Your task to perform on an android device: Add "razer blackwidow" to the cart on target.com, then select checkout. Image 0: 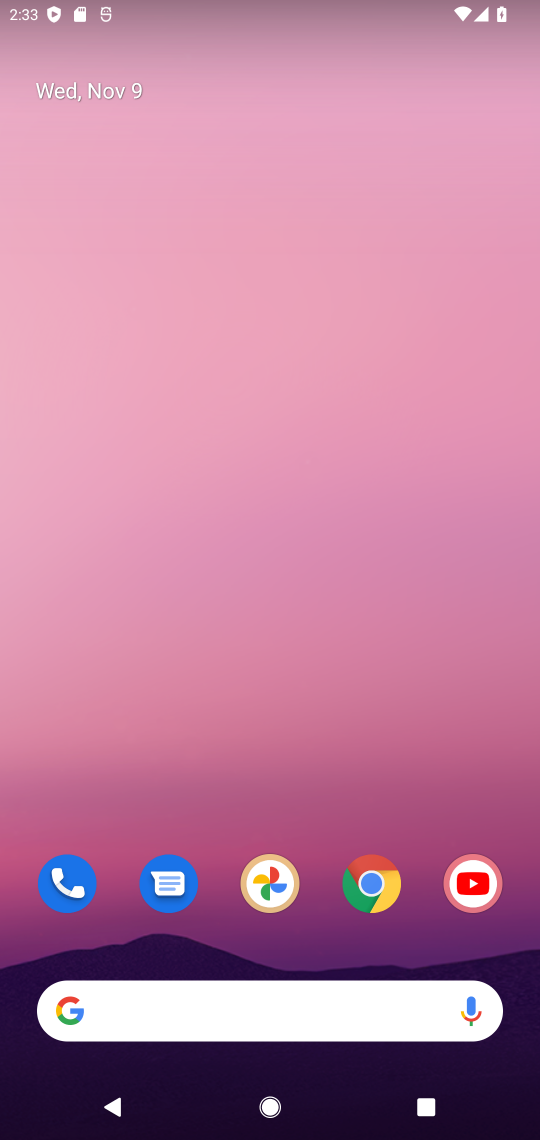
Step 0: click (350, 890)
Your task to perform on an android device: Add "razer blackwidow" to the cart on target.com, then select checkout. Image 1: 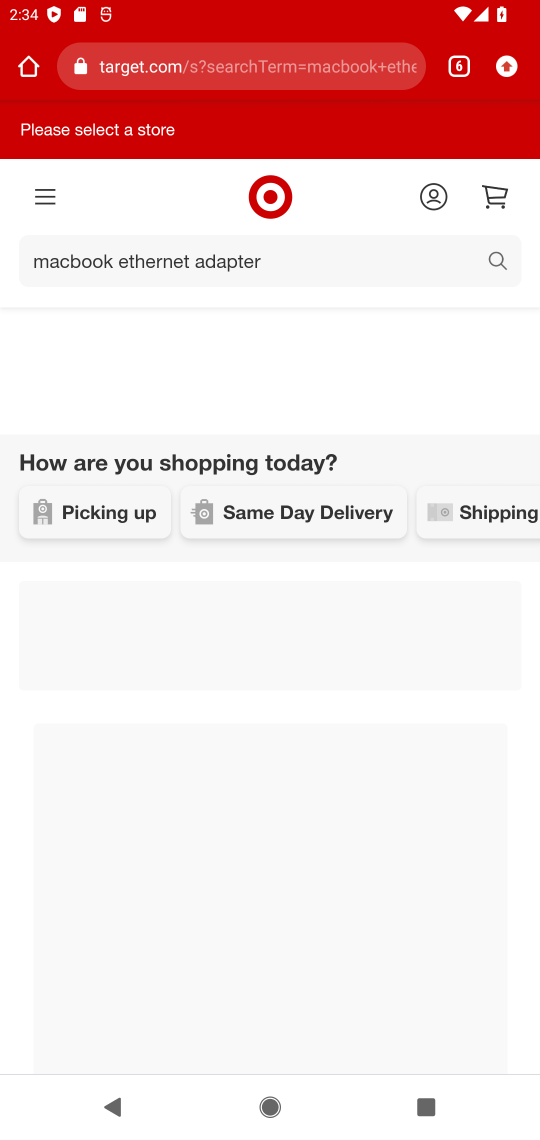
Step 1: click (87, 253)
Your task to perform on an android device: Add "razer blackwidow" to the cart on target.com, then select checkout. Image 2: 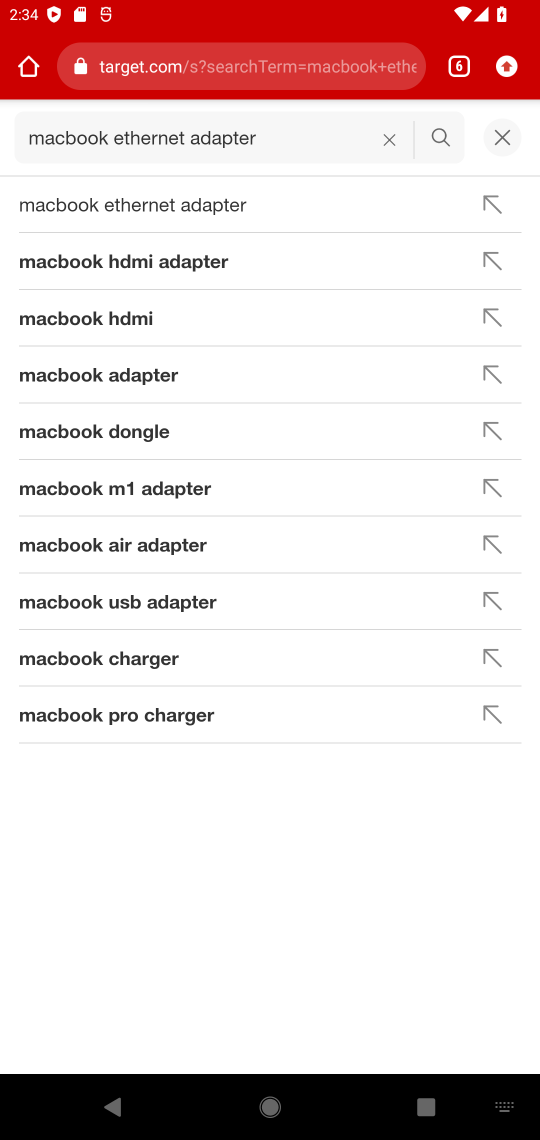
Step 2: click (390, 139)
Your task to perform on an android device: Add "razer blackwidow" to the cart on target.com, then select checkout. Image 3: 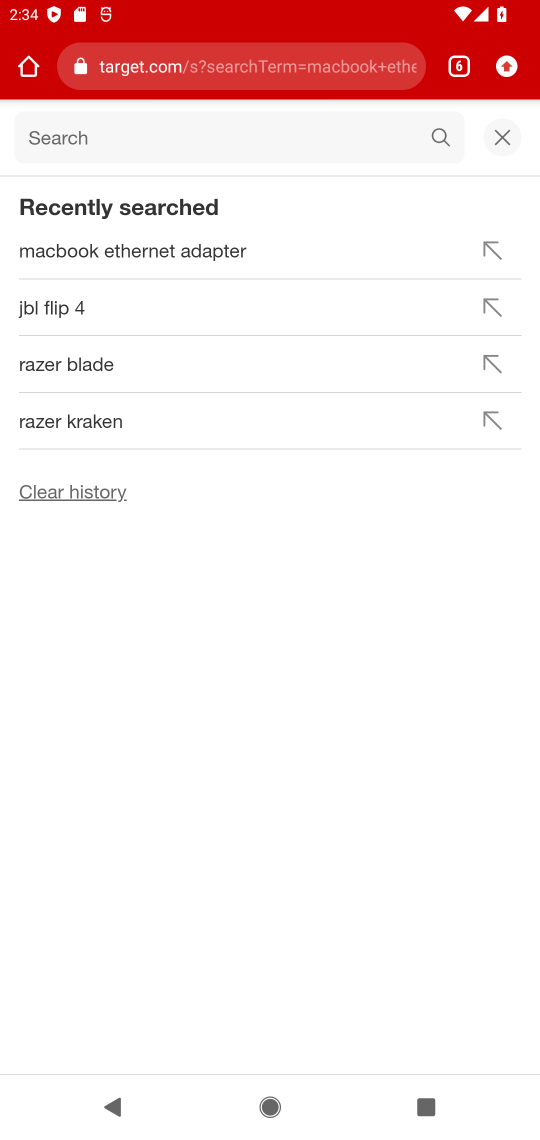
Step 3: click (72, 133)
Your task to perform on an android device: Add "razer blackwidow" to the cart on target.com, then select checkout. Image 4: 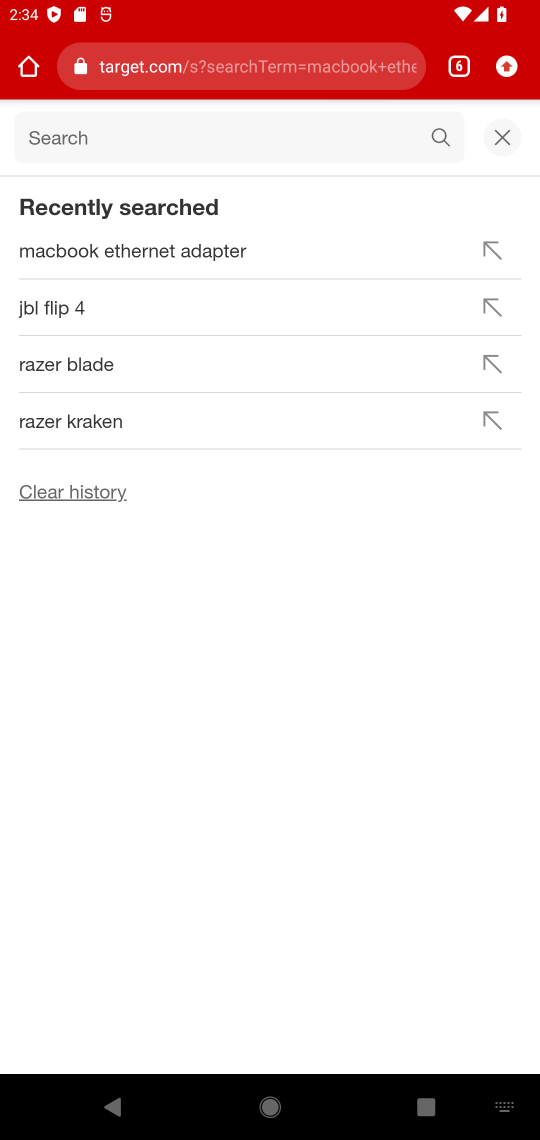
Step 4: type "razer blackwidow"
Your task to perform on an android device: Add "razer blackwidow" to the cart on target.com, then select checkout. Image 5: 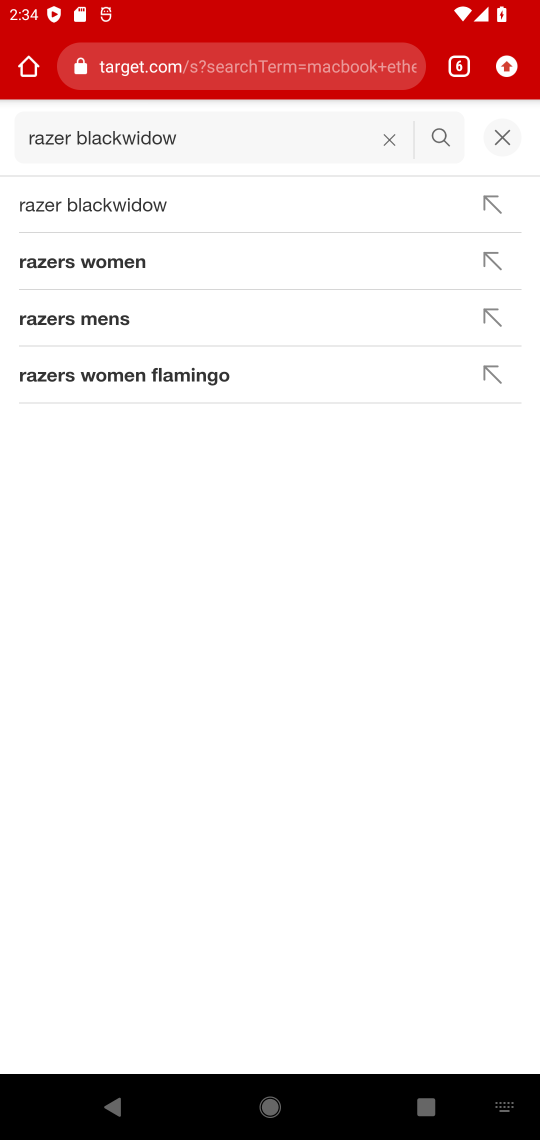
Step 5: click (136, 195)
Your task to perform on an android device: Add "razer blackwidow" to the cart on target.com, then select checkout. Image 6: 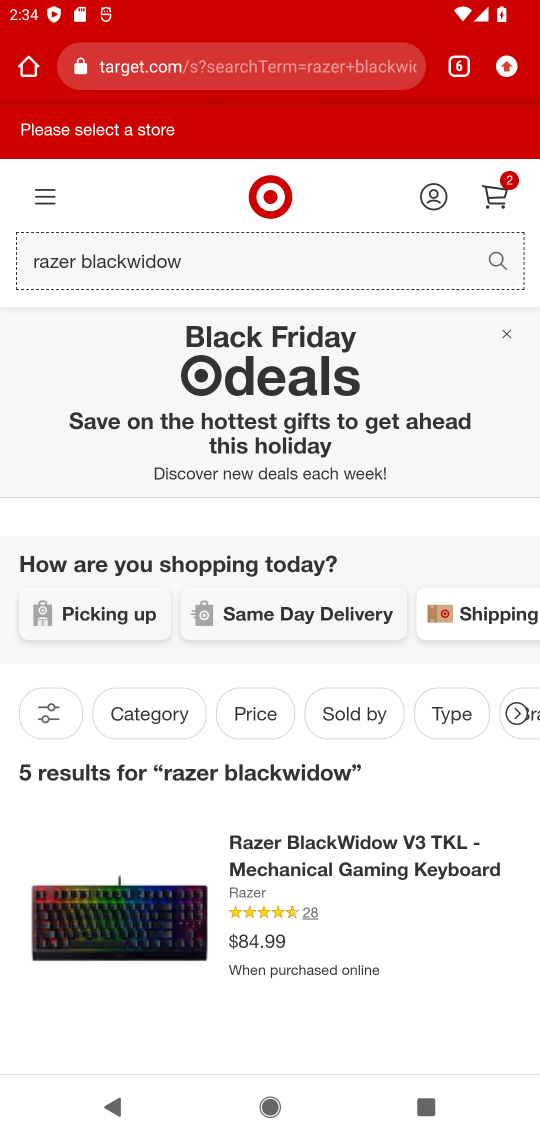
Step 6: click (290, 847)
Your task to perform on an android device: Add "razer blackwidow" to the cart on target.com, then select checkout. Image 7: 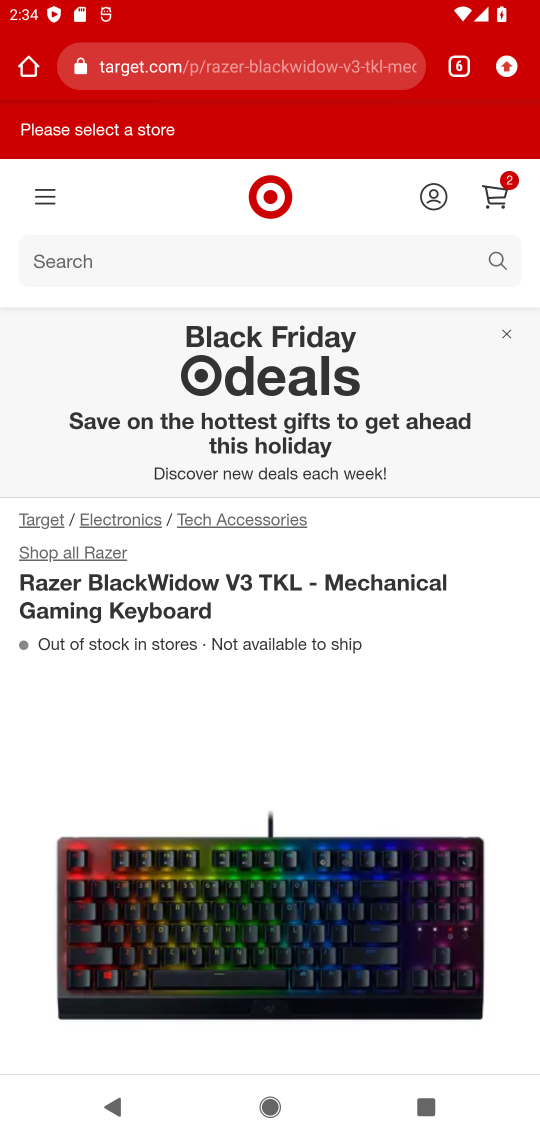
Step 7: drag from (290, 847) to (286, 316)
Your task to perform on an android device: Add "razer blackwidow" to the cart on target.com, then select checkout. Image 8: 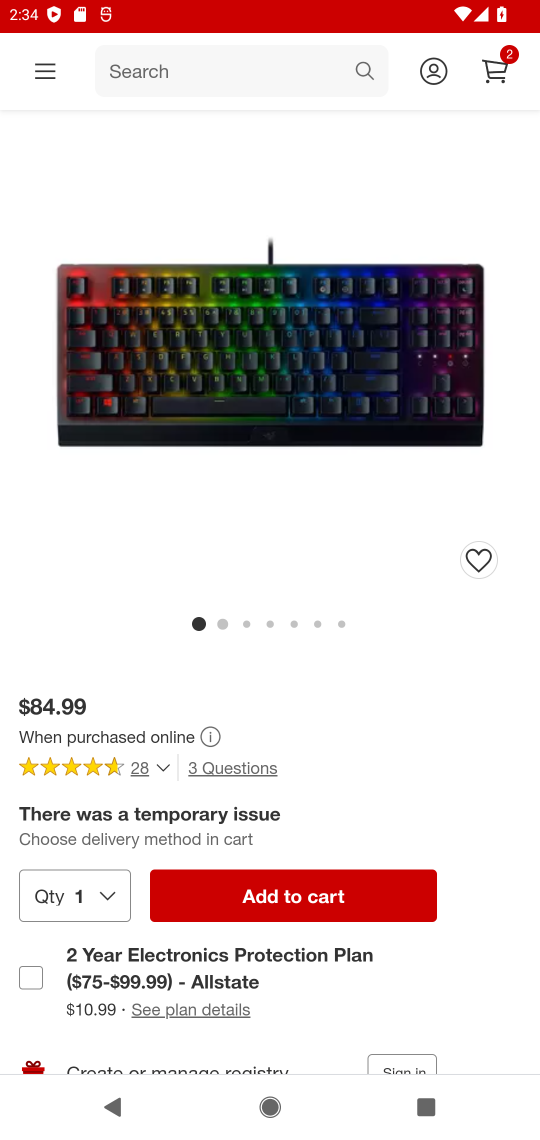
Step 8: click (323, 896)
Your task to perform on an android device: Add "razer blackwidow" to the cart on target.com, then select checkout. Image 9: 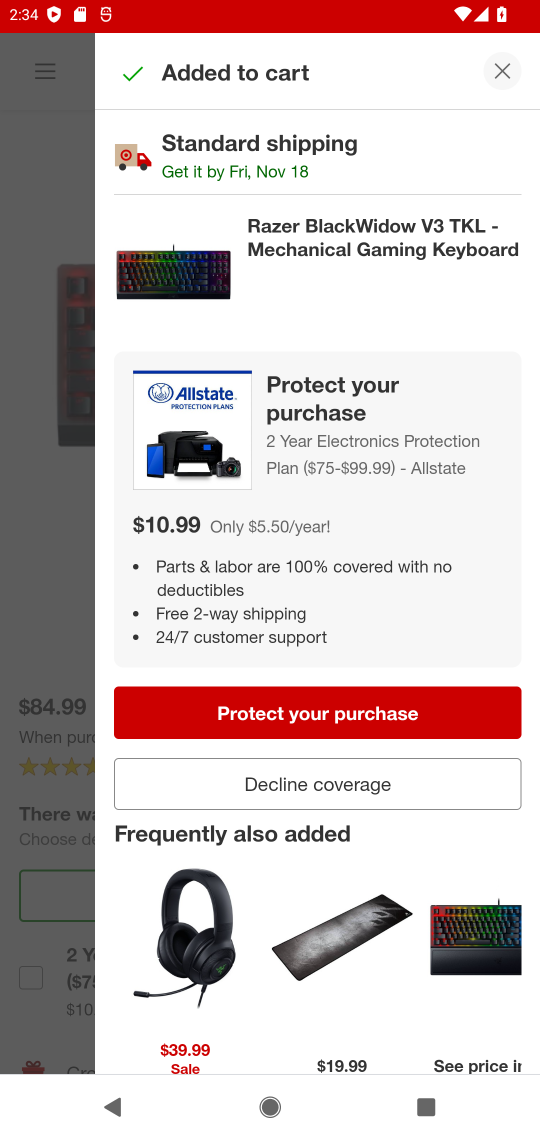
Step 9: click (338, 770)
Your task to perform on an android device: Add "razer blackwidow" to the cart on target.com, then select checkout. Image 10: 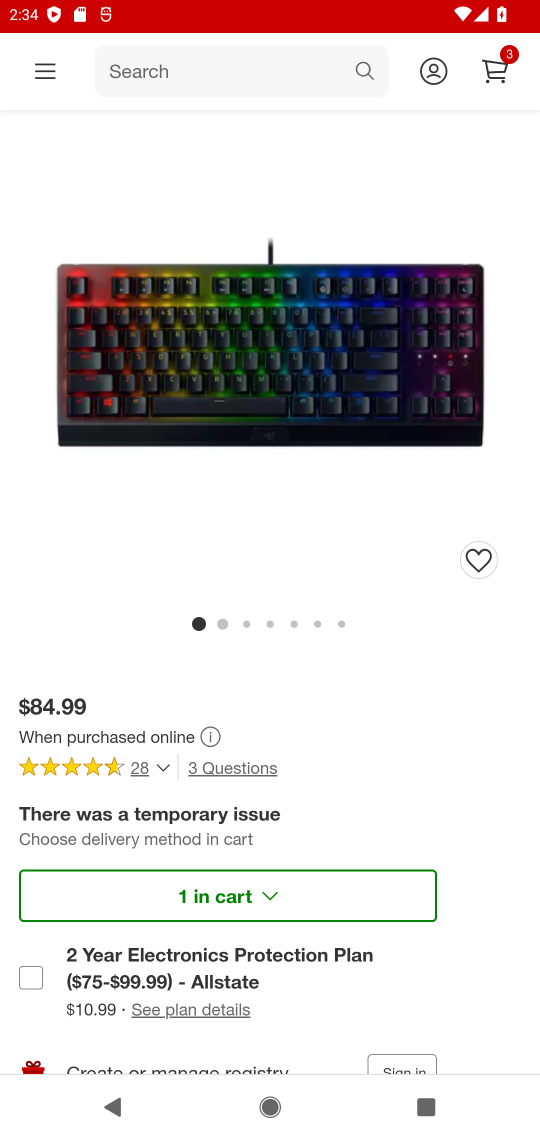
Step 10: click (506, 62)
Your task to perform on an android device: Add "razer blackwidow" to the cart on target.com, then select checkout. Image 11: 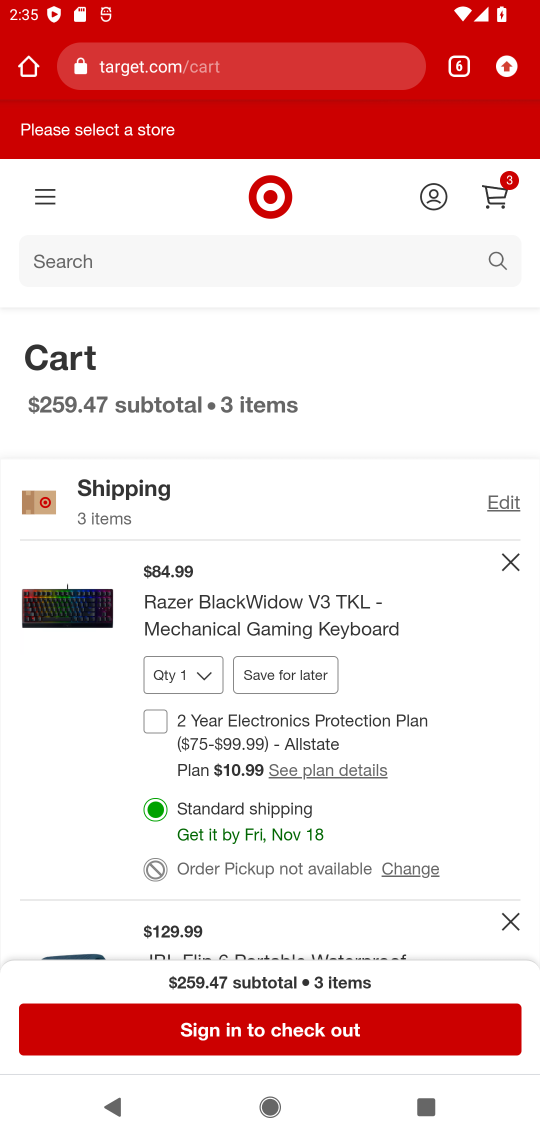
Step 11: click (299, 1026)
Your task to perform on an android device: Add "razer blackwidow" to the cart on target.com, then select checkout. Image 12: 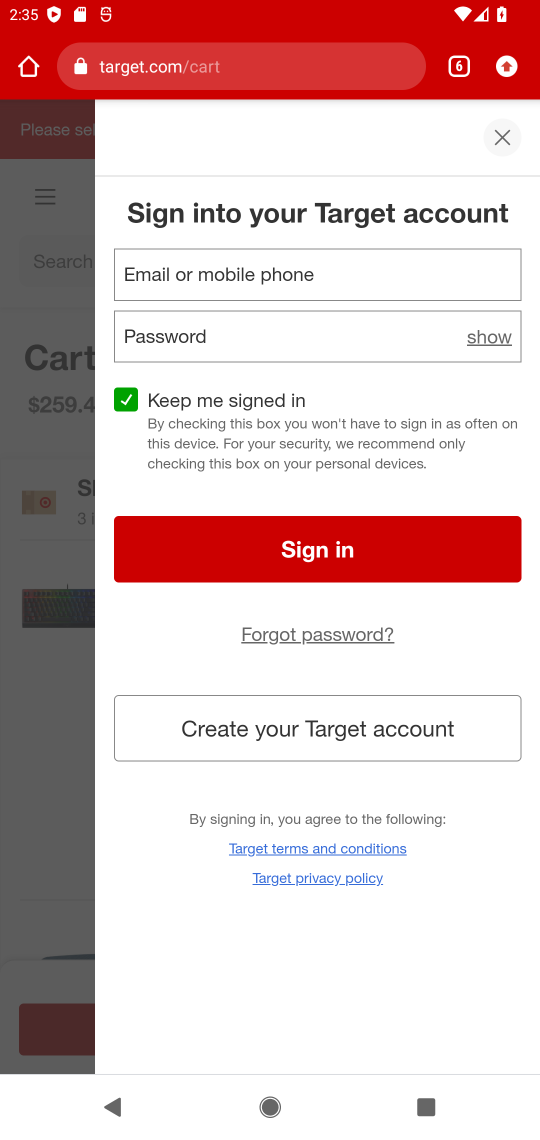
Step 12: task complete